Your task to perform on an android device: Open Google Image 0: 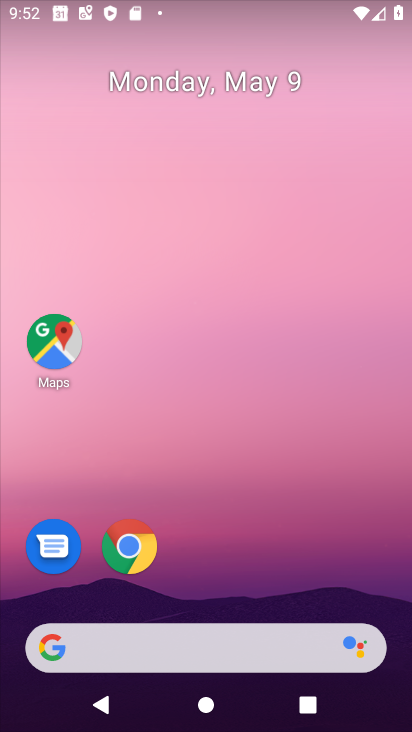
Step 0: drag from (236, 579) to (303, 111)
Your task to perform on an android device: Open Google Image 1: 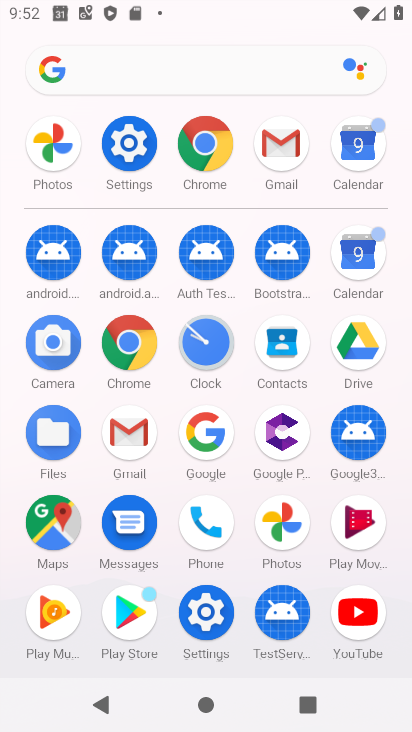
Step 1: click (198, 435)
Your task to perform on an android device: Open Google Image 2: 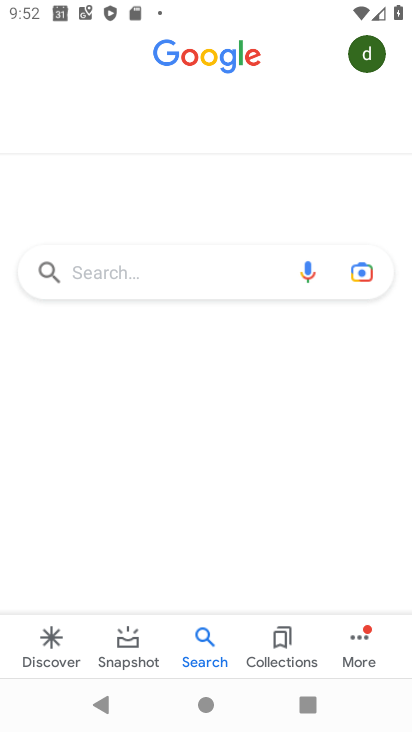
Step 2: task complete